Your task to perform on an android device: turn on javascript in the chrome app Image 0: 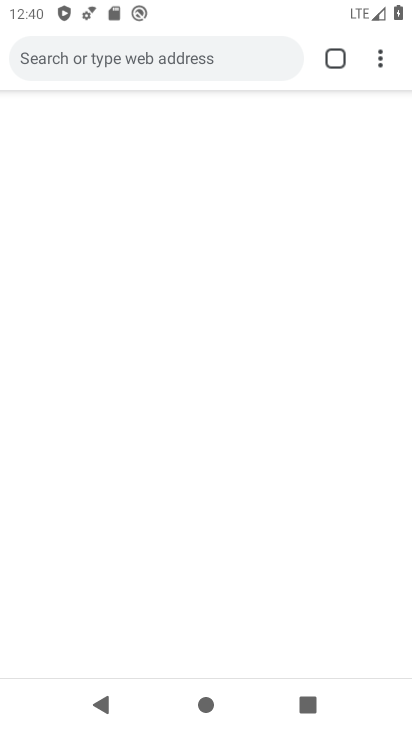
Step 0: drag from (332, 109) to (317, 594)
Your task to perform on an android device: turn on javascript in the chrome app Image 1: 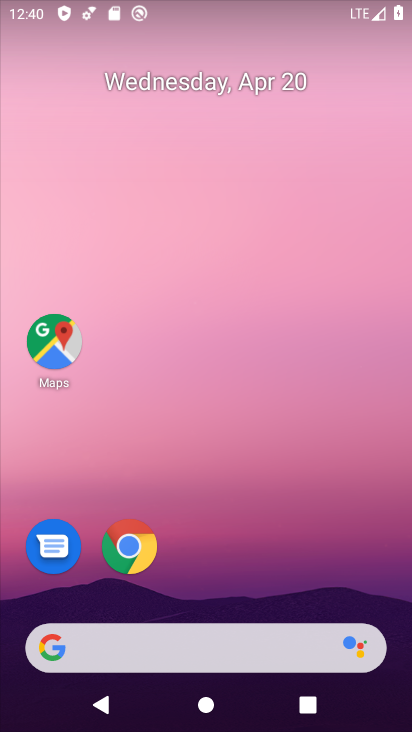
Step 1: task complete